Your task to perform on an android device: open app "Booking.com: Hotels and more" (install if not already installed) and go to login screen Image 0: 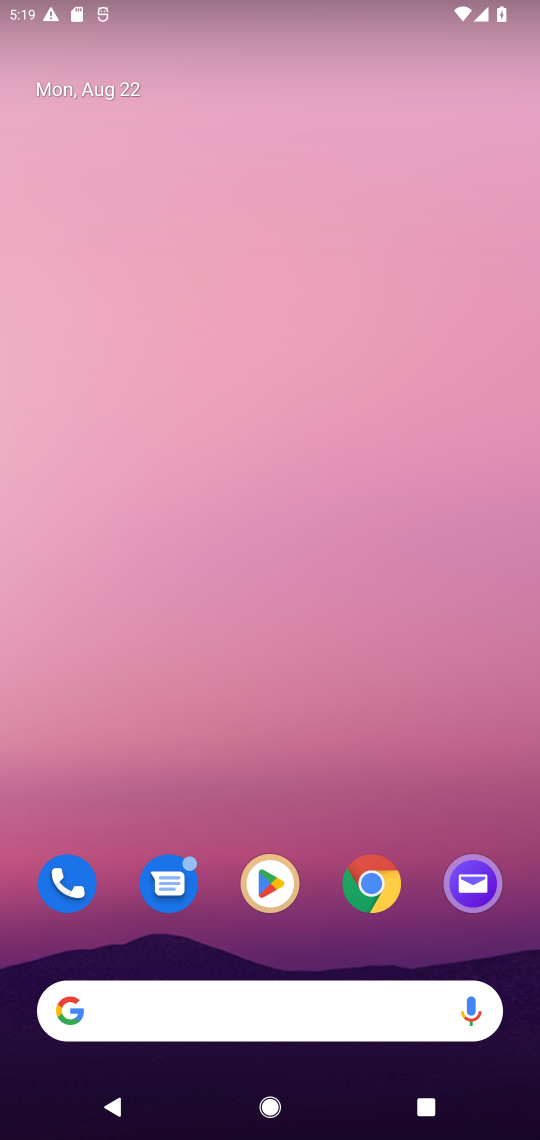
Step 0: drag from (207, 887) to (234, 234)
Your task to perform on an android device: open app "Booking.com: Hotels and more" (install if not already installed) and go to login screen Image 1: 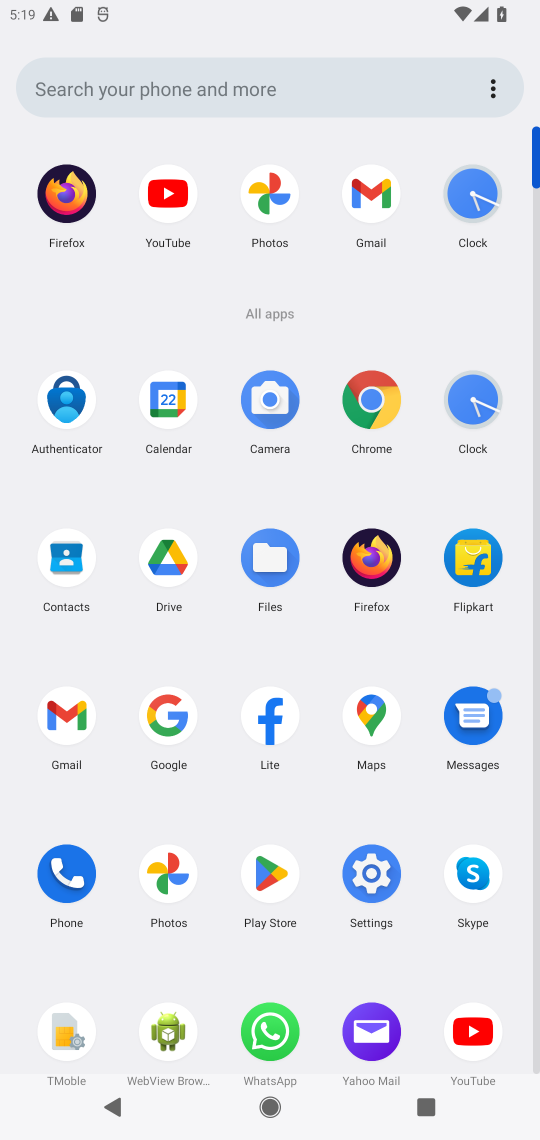
Step 1: click (267, 900)
Your task to perform on an android device: open app "Booking.com: Hotels and more" (install if not already installed) and go to login screen Image 2: 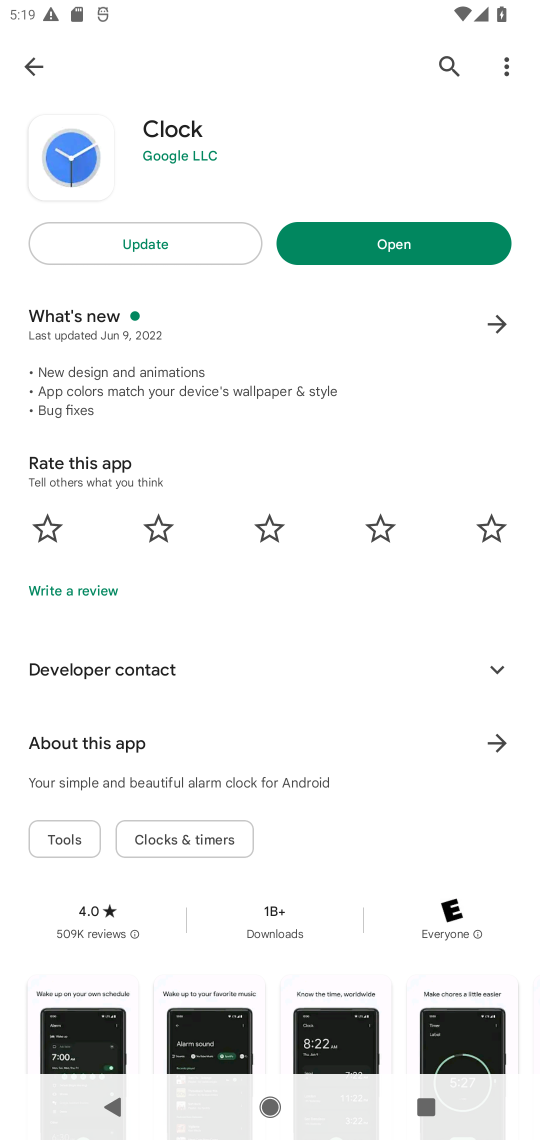
Step 2: click (444, 65)
Your task to perform on an android device: open app "Booking.com: Hotels and more" (install if not already installed) and go to login screen Image 3: 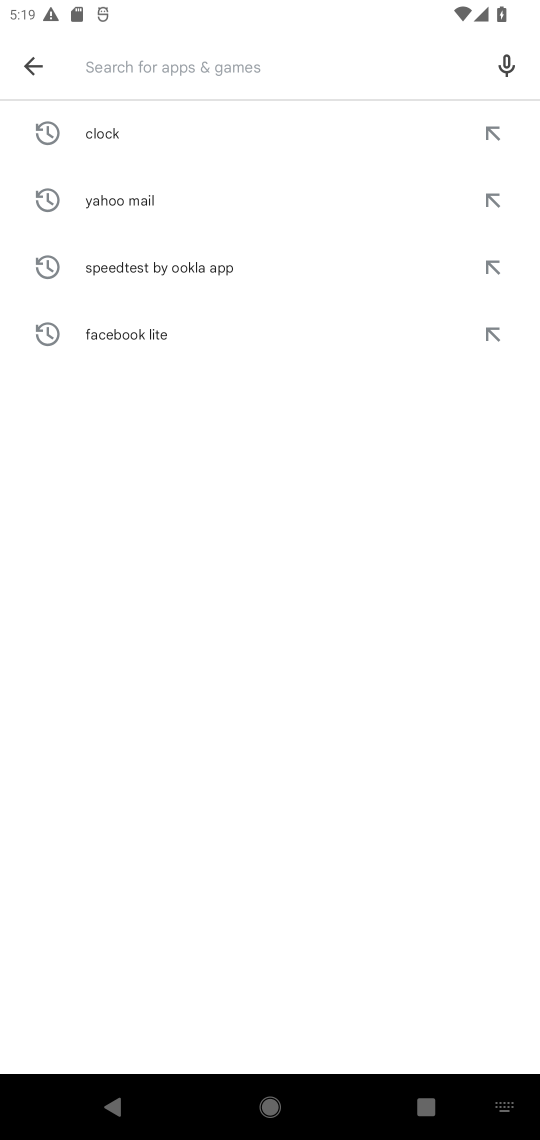
Step 3: type "Booking.com: Hotels and more"
Your task to perform on an android device: open app "Booking.com: Hotels and more" (install if not already installed) and go to login screen Image 4: 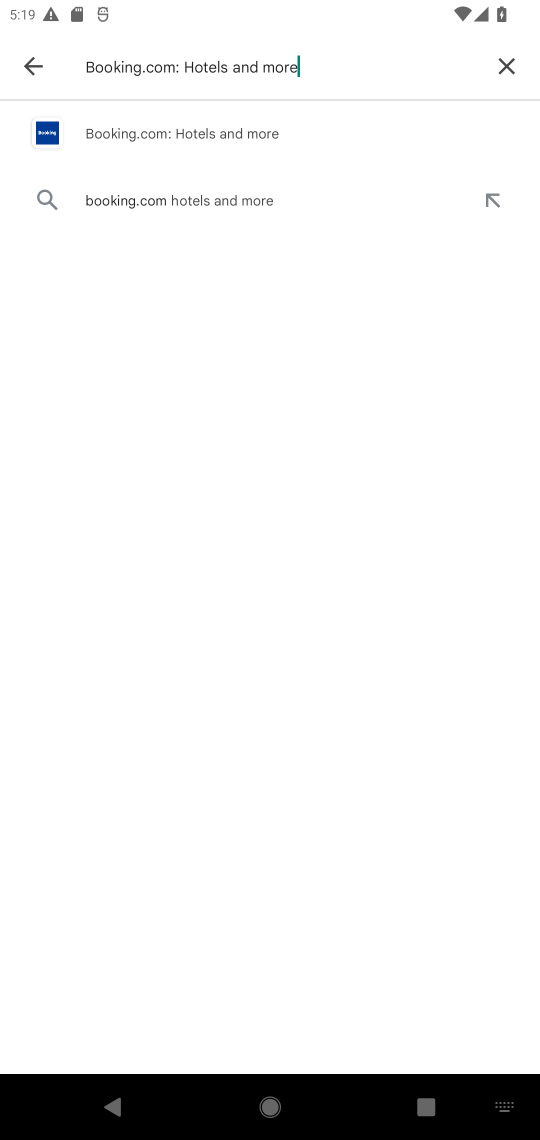
Step 4: click (262, 141)
Your task to perform on an android device: open app "Booking.com: Hotels and more" (install if not already installed) and go to login screen Image 5: 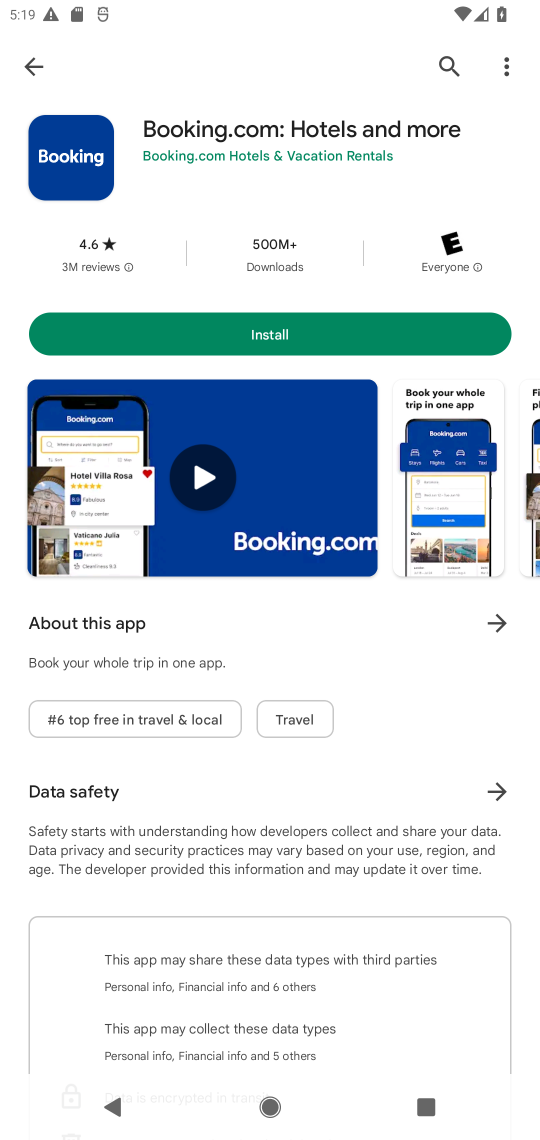
Step 5: click (257, 333)
Your task to perform on an android device: open app "Booking.com: Hotels and more" (install if not already installed) and go to login screen Image 6: 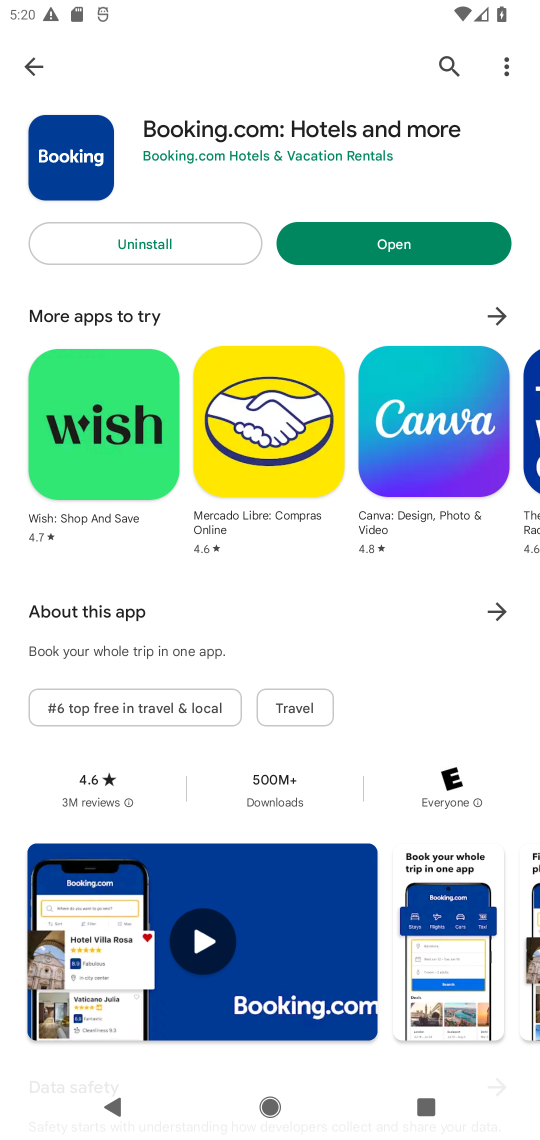
Step 6: click (413, 245)
Your task to perform on an android device: open app "Booking.com: Hotels and more" (install if not already installed) and go to login screen Image 7: 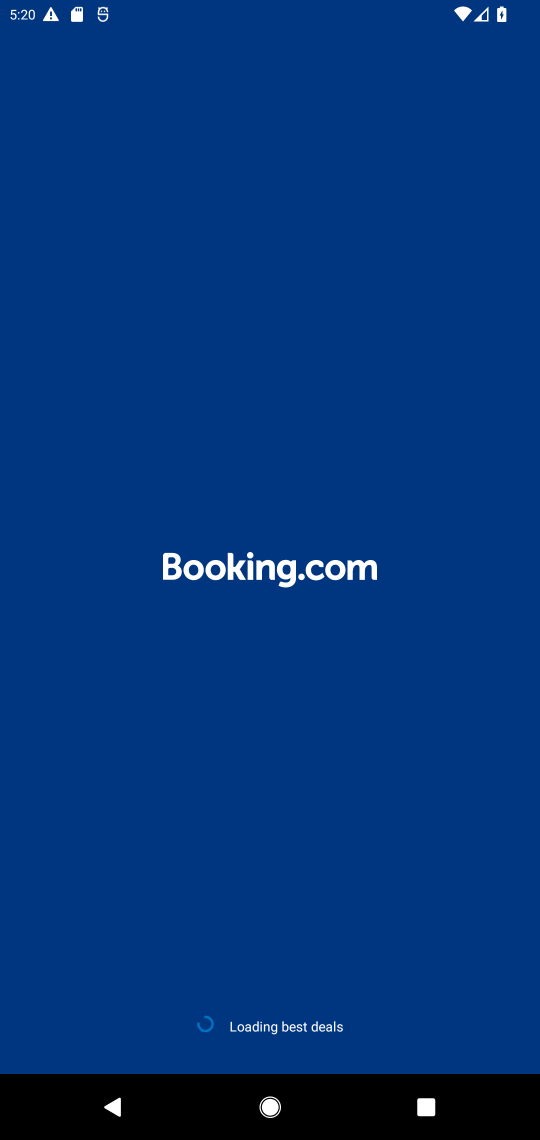
Step 7: task complete